Your task to perform on an android device: Add "bose soundlink mini" to the cart on walmart Image 0: 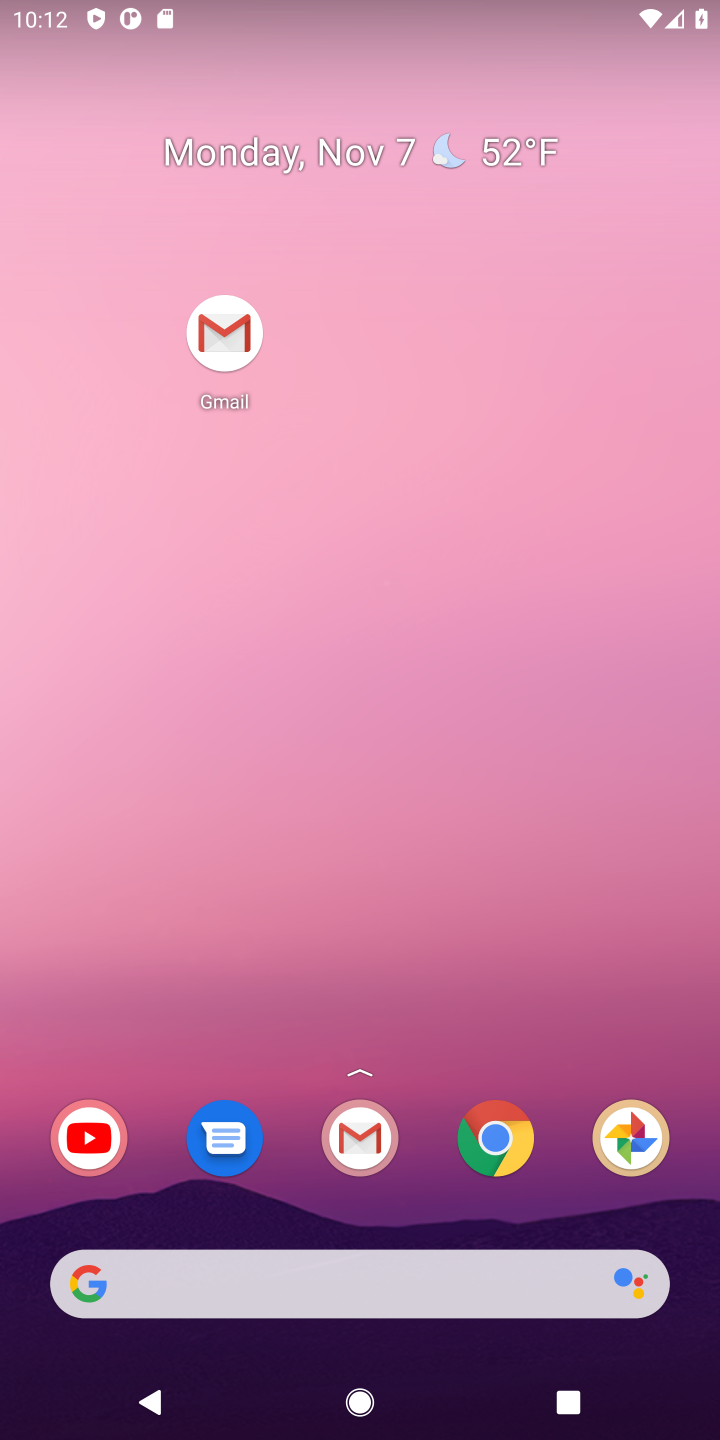
Step 0: drag from (376, 1174) to (351, 6)
Your task to perform on an android device: Add "bose soundlink mini" to the cart on walmart Image 1: 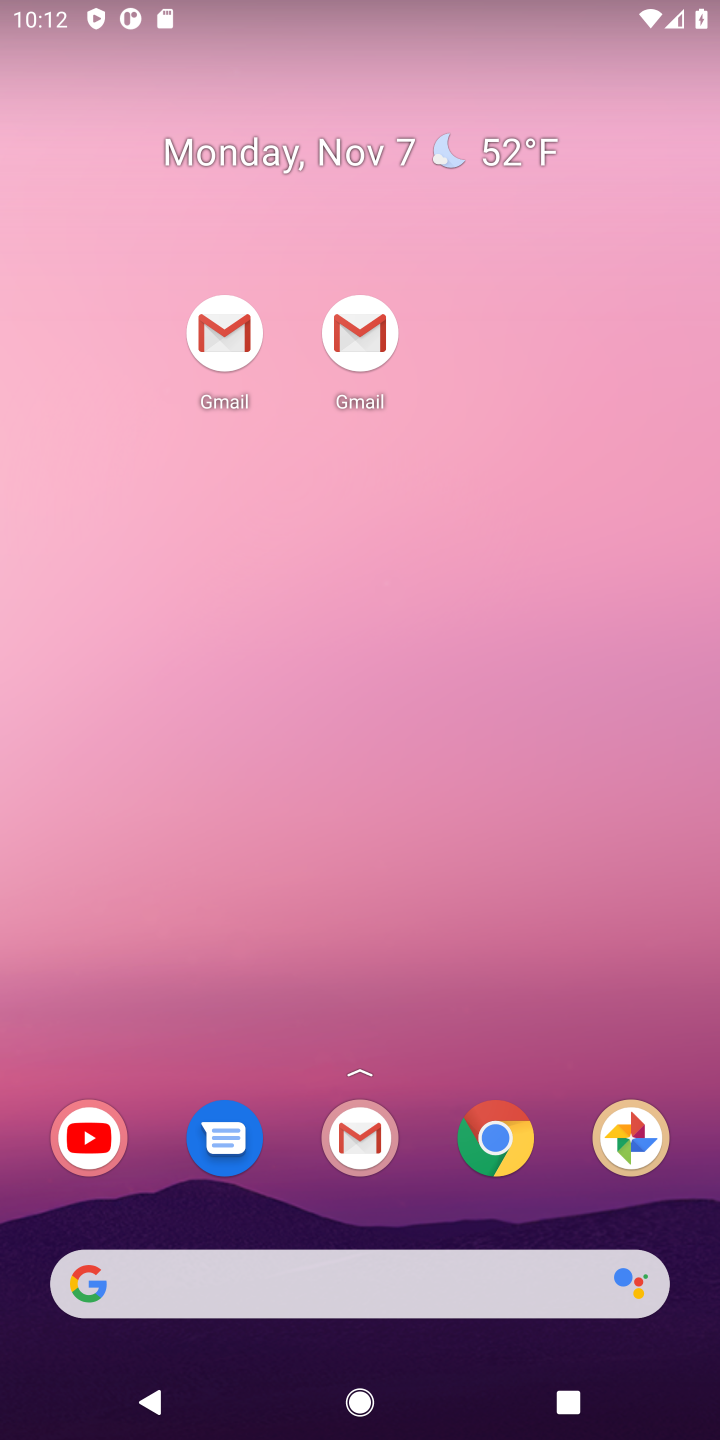
Step 1: drag from (354, 1145) to (256, 173)
Your task to perform on an android device: Add "bose soundlink mini" to the cart on walmart Image 2: 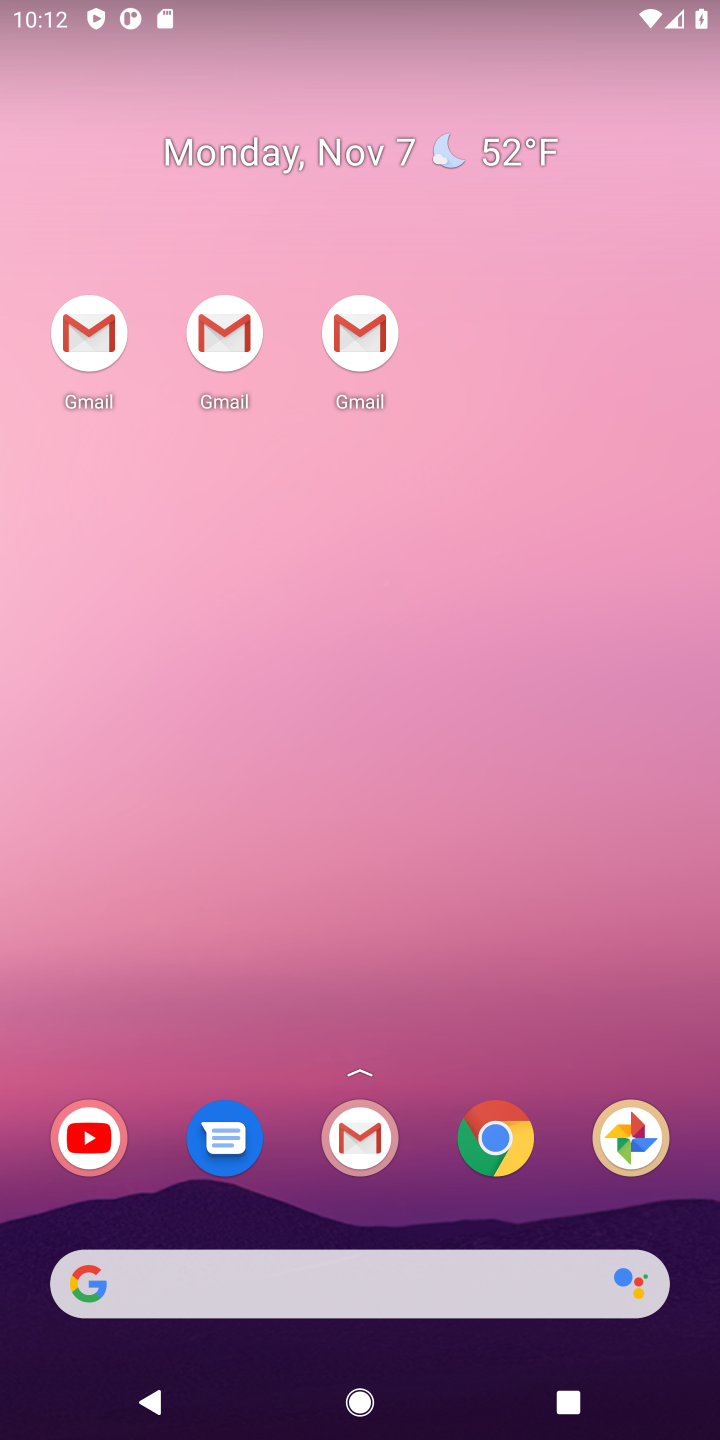
Step 2: drag from (378, 1102) to (442, 255)
Your task to perform on an android device: Add "bose soundlink mini" to the cart on walmart Image 3: 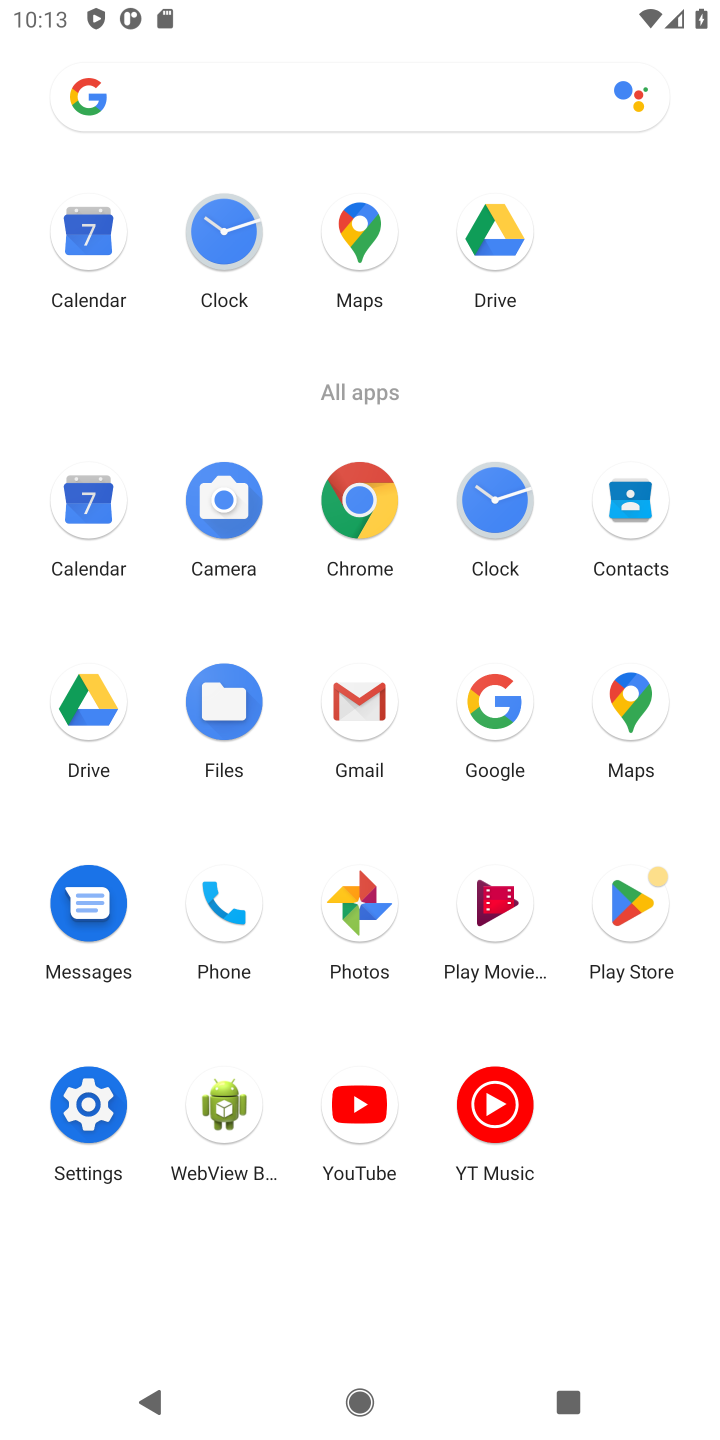
Step 3: click (506, 728)
Your task to perform on an android device: Add "bose soundlink mini" to the cart on walmart Image 4: 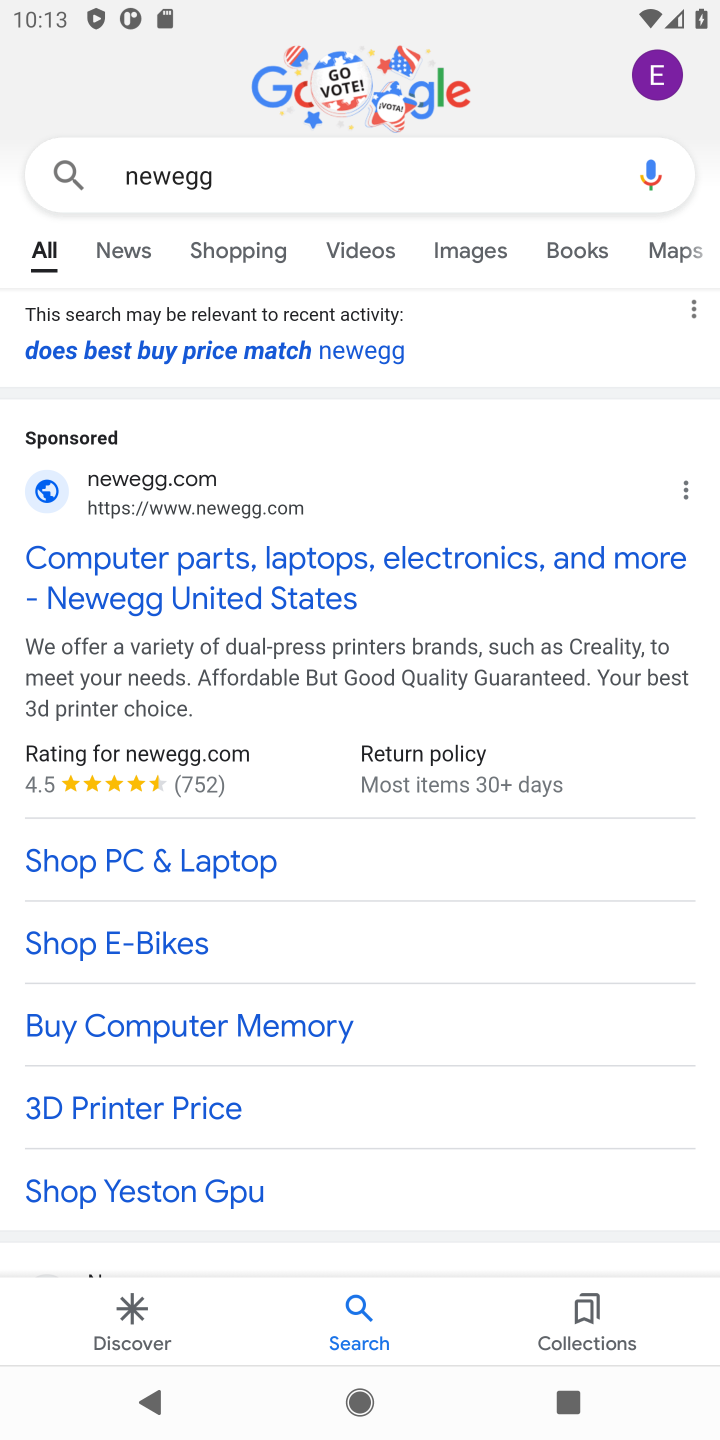
Step 4: click (462, 194)
Your task to perform on an android device: Add "bose soundlink mini" to the cart on walmart Image 5: 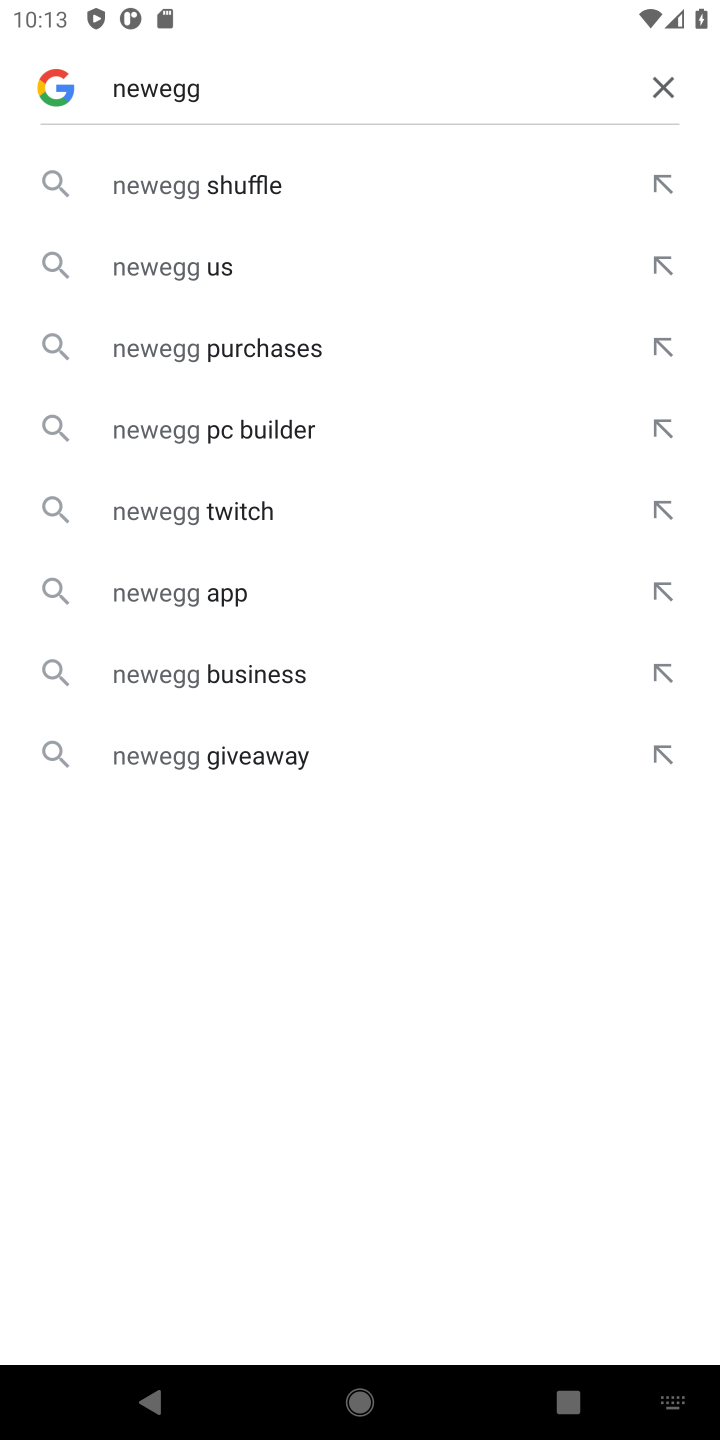
Step 5: click (659, 88)
Your task to perform on an android device: Add "bose soundlink mini" to the cart on walmart Image 6: 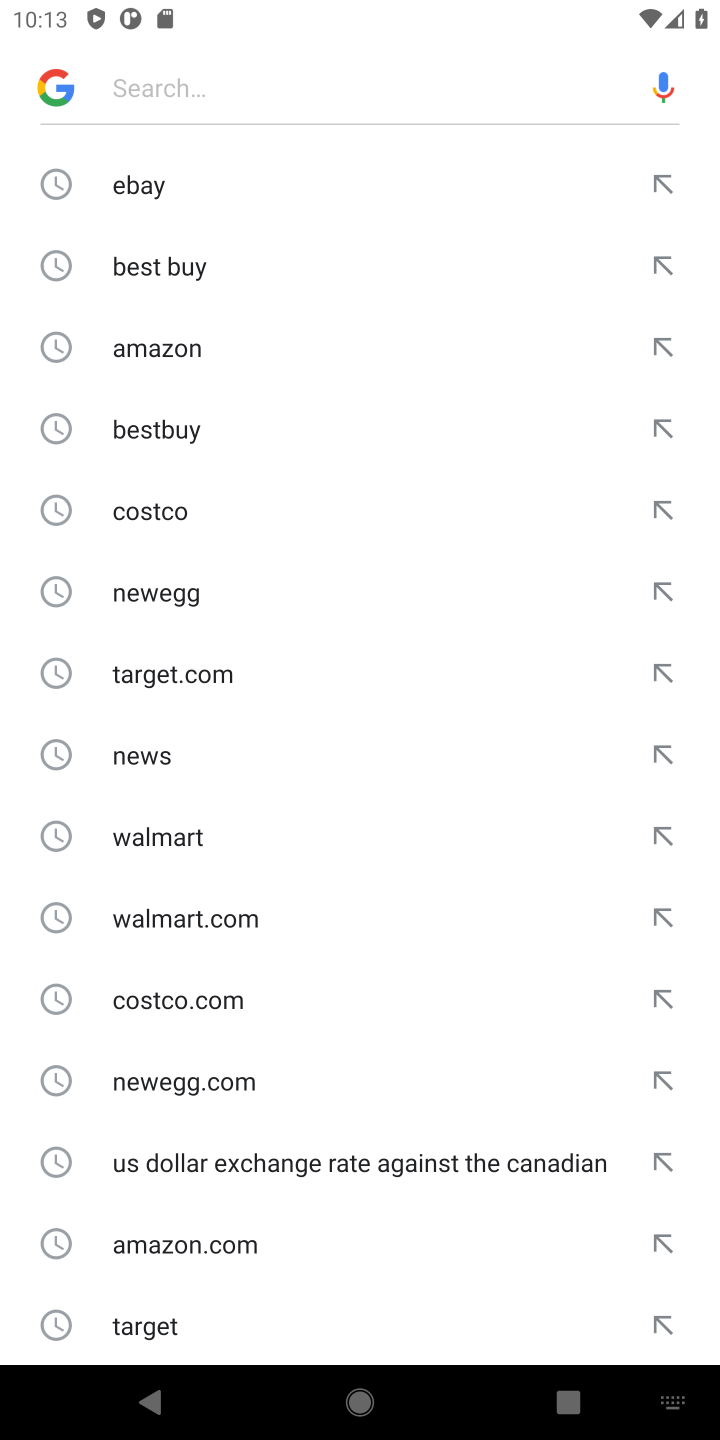
Step 6: click (331, 822)
Your task to perform on an android device: Add "bose soundlink mini" to the cart on walmart Image 7: 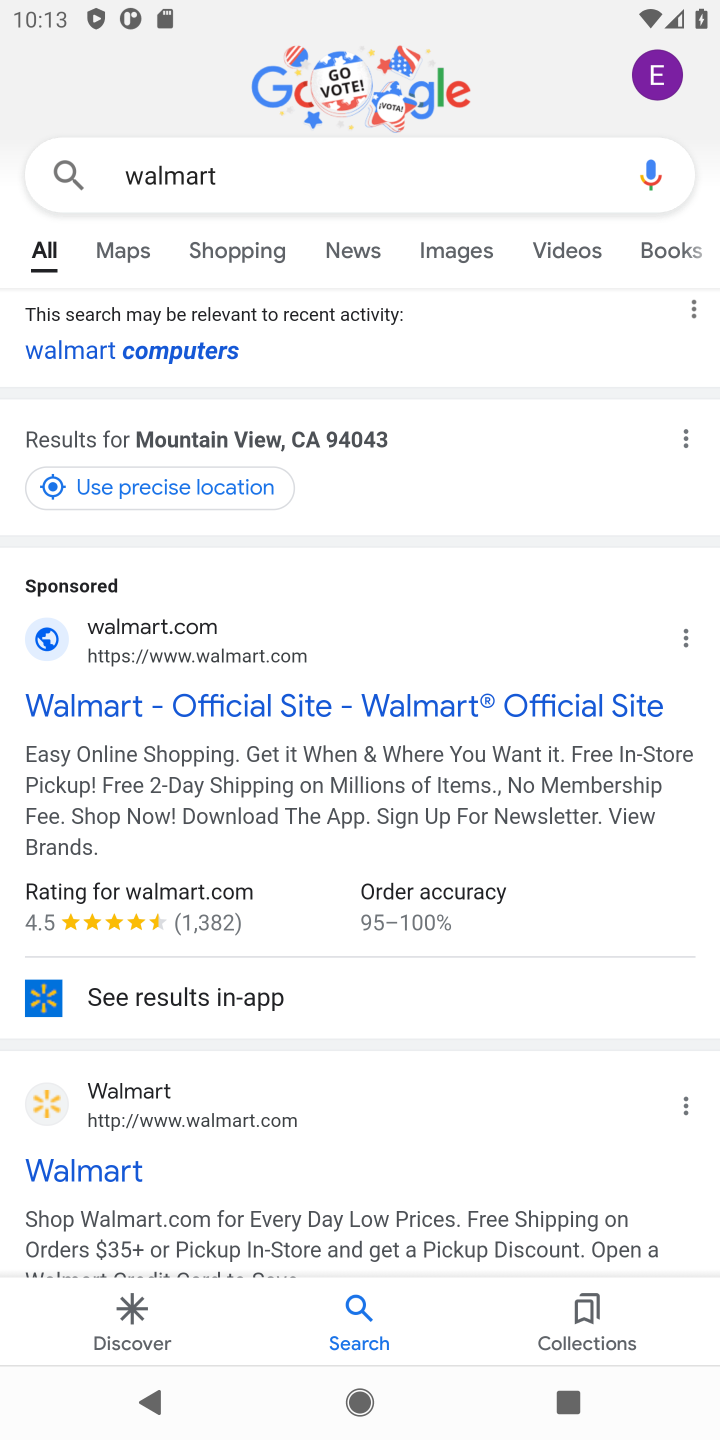
Step 7: click (249, 703)
Your task to perform on an android device: Add "bose soundlink mini" to the cart on walmart Image 8: 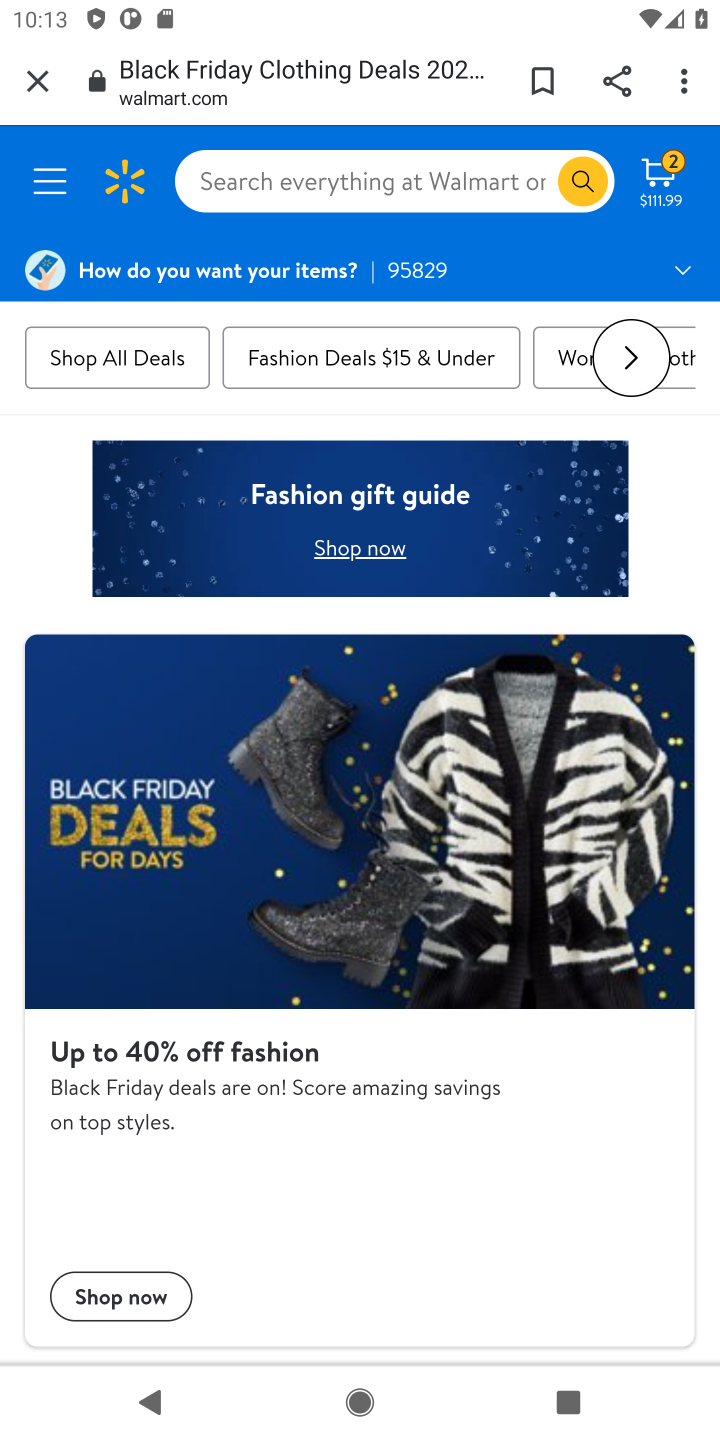
Step 8: click (301, 186)
Your task to perform on an android device: Add "bose soundlink mini" to the cart on walmart Image 9: 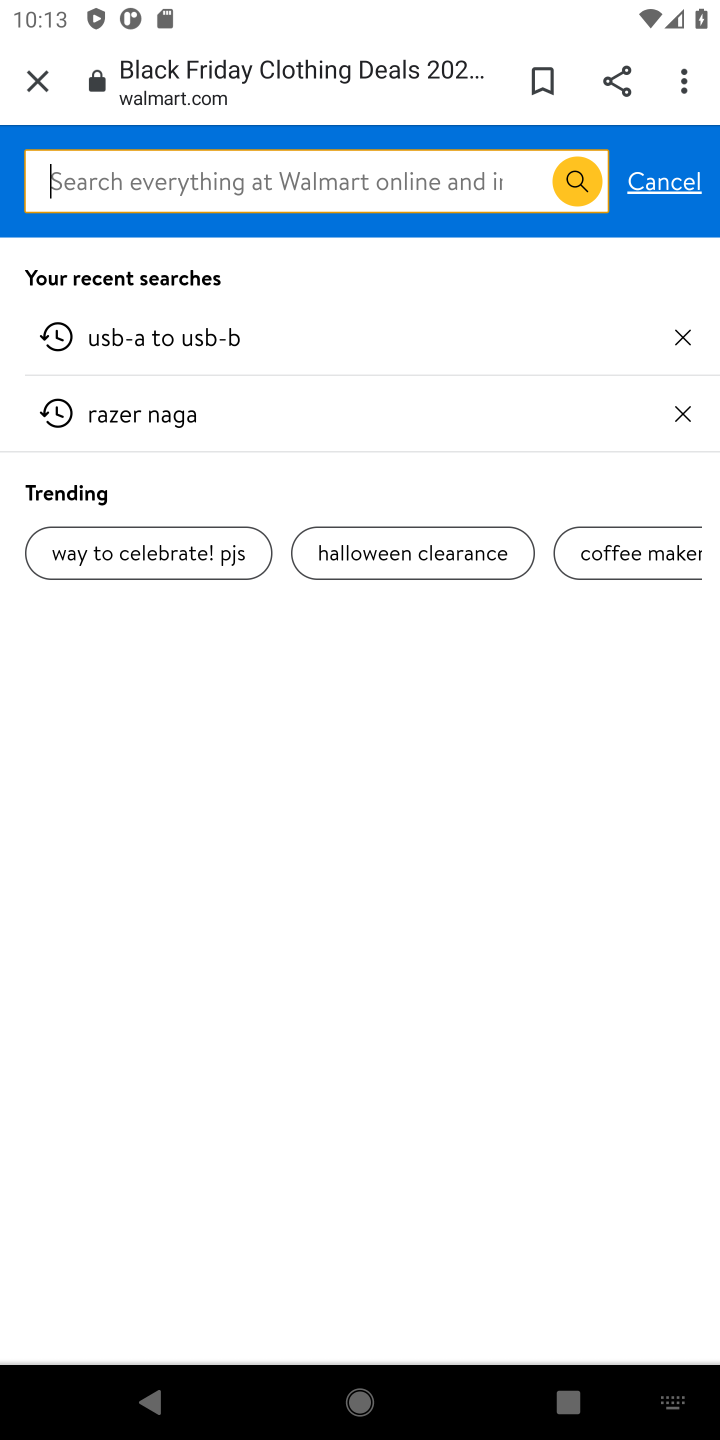
Step 9: type "bose soundlink mini"
Your task to perform on an android device: Add "bose soundlink mini" to the cart on walmart Image 10: 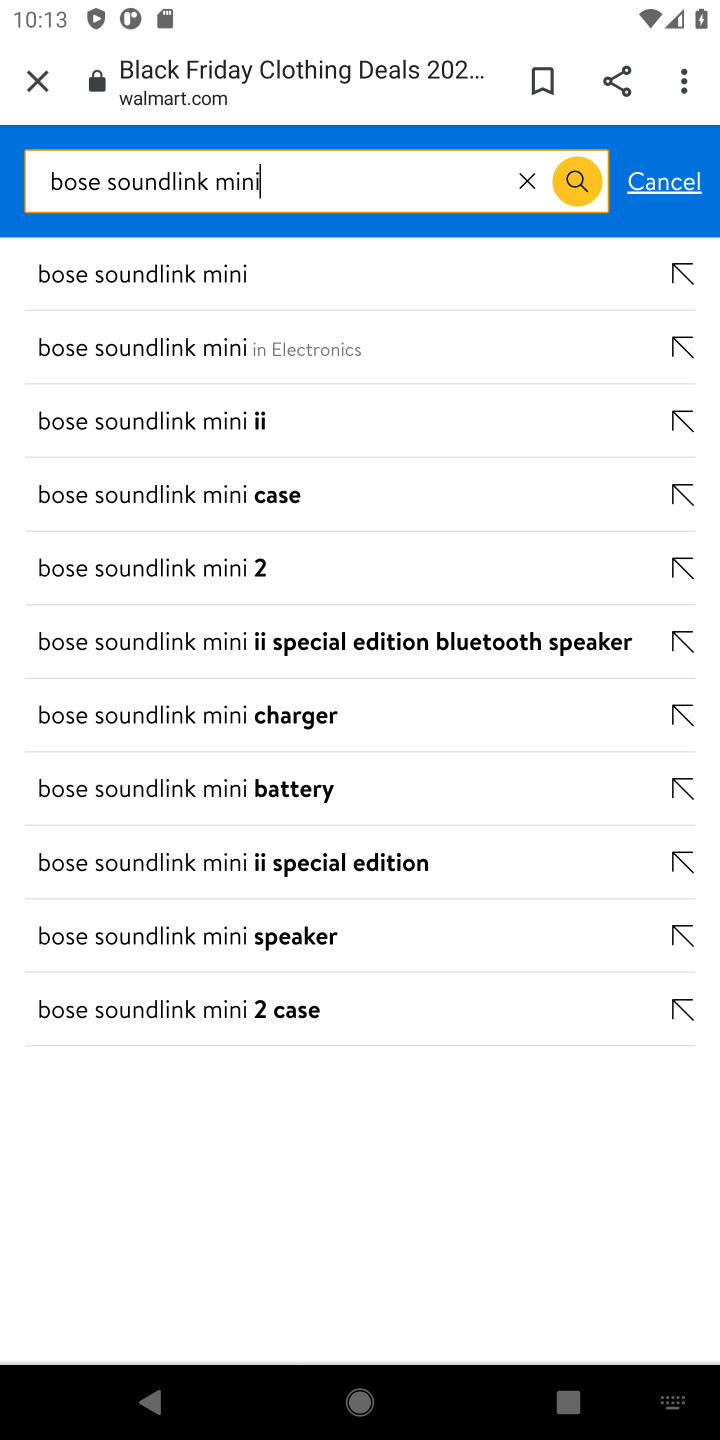
Step 10: click (202, 362)
Your task to perform on an android device: Add "bose soundlink mini" to the cart on walmart Image 11: 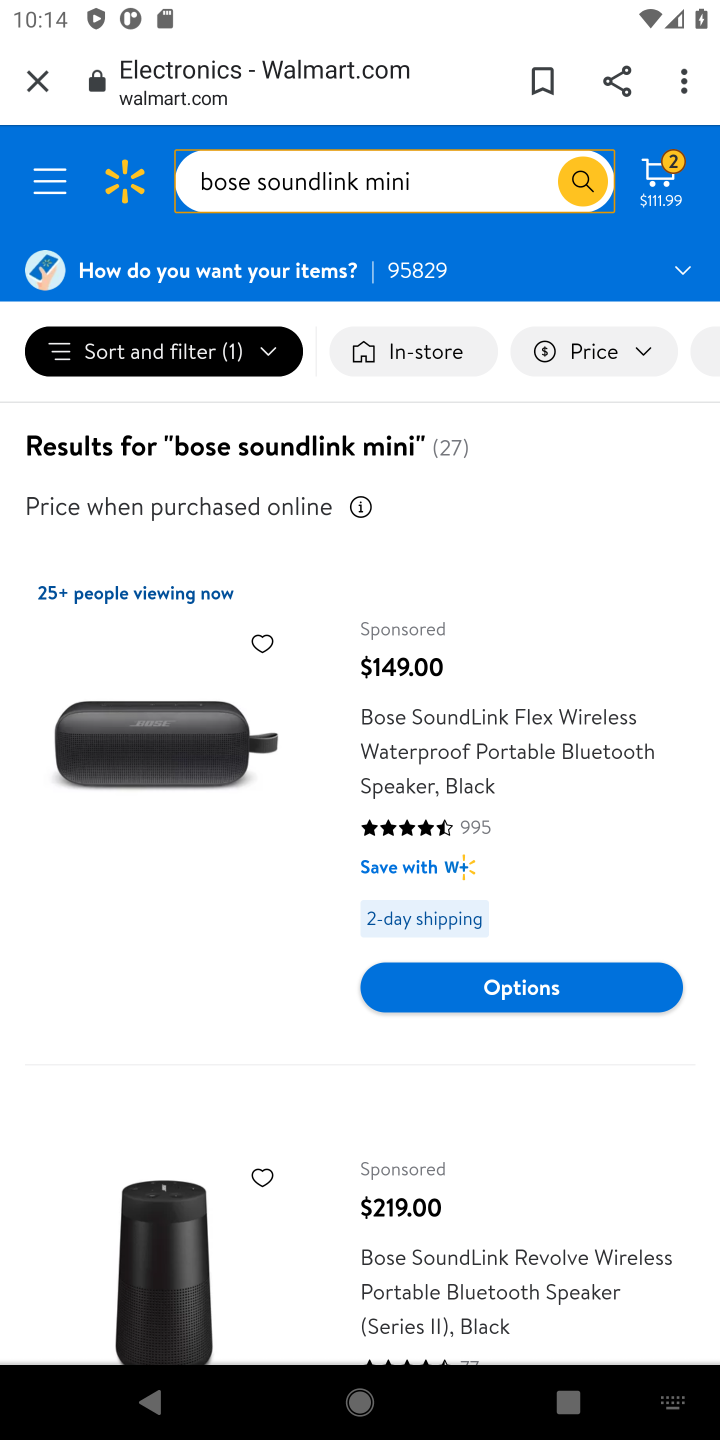
Step 11: click (507, 997)
Your task to perform on an android device: Add "bose soundlink mini" to the cart on walmart Image 12: 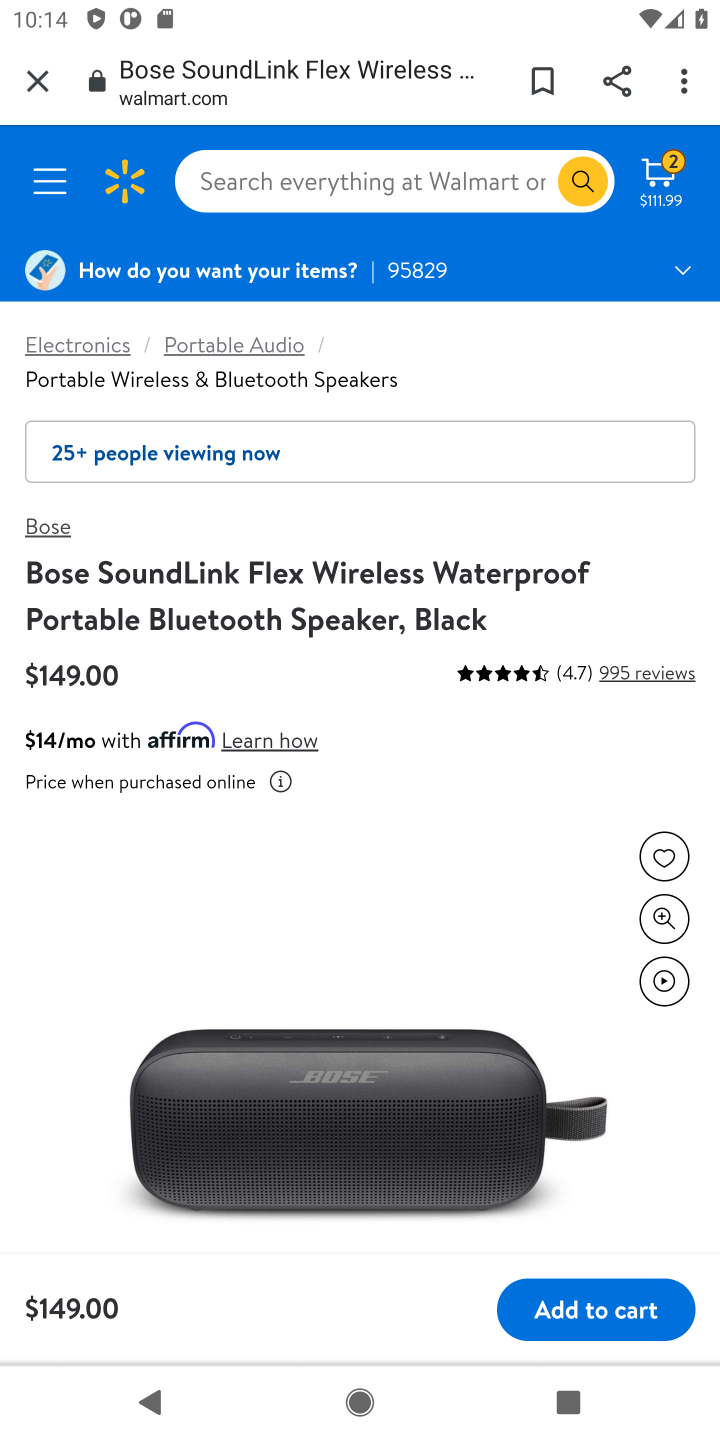
Step 12: click (592, 1328)
Your task to perform on an android device: Add "bose soundlink mini" to the cart on walmart Image 13: 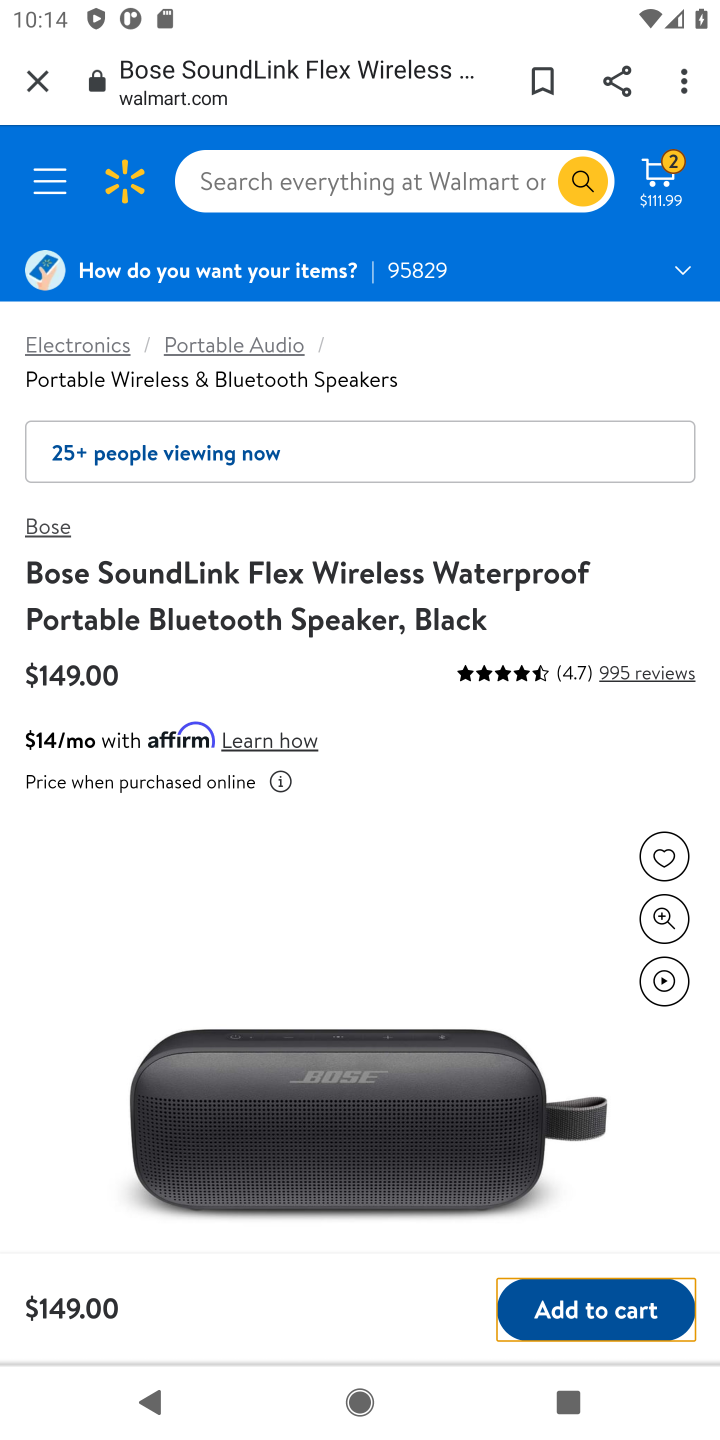
Step 13: click (584, 1319)
Your task to perform on an android device: Add "bose soundlink mini" to the cart on walmart Image 14: 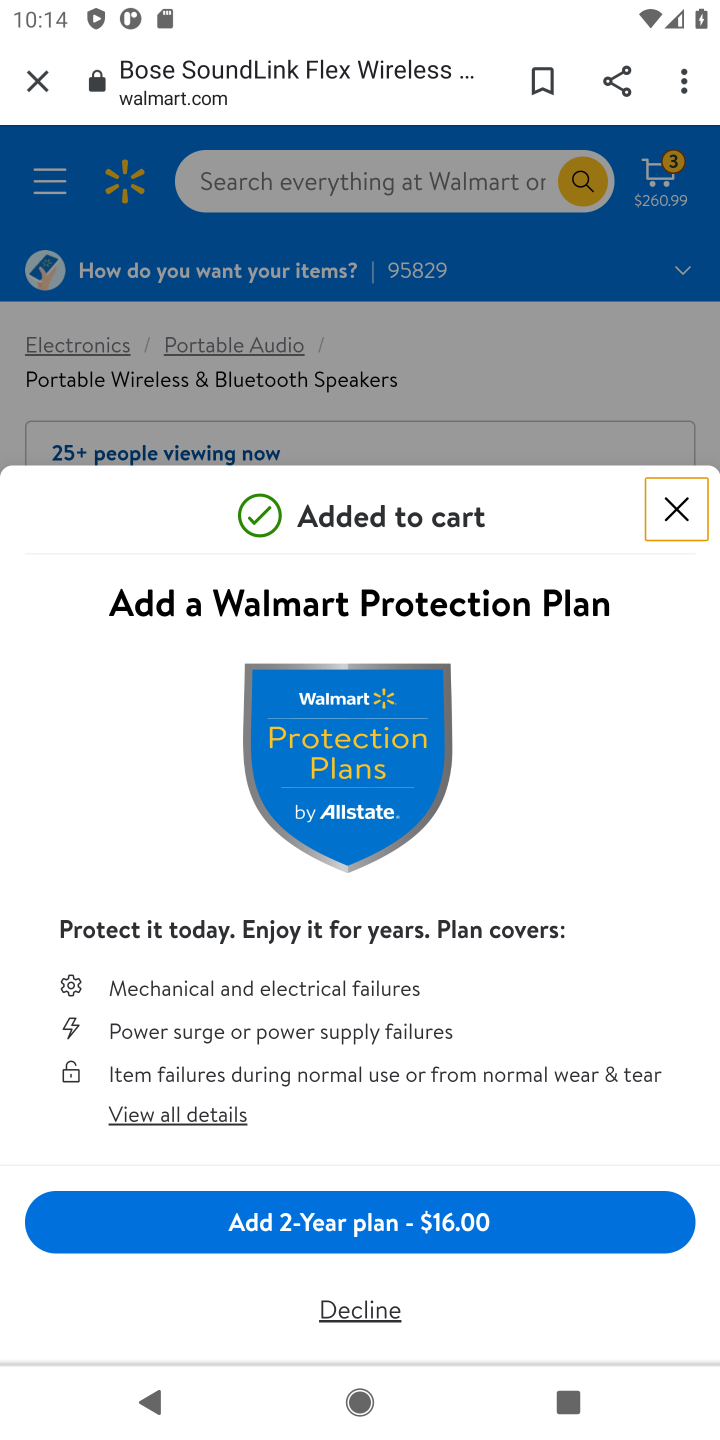
Step 14: task complete